Your task to perform on an android device: Clear the shopping cart on bestbuy. Add "usb-c to usb-a" to the cart on bestbuy Image 0: 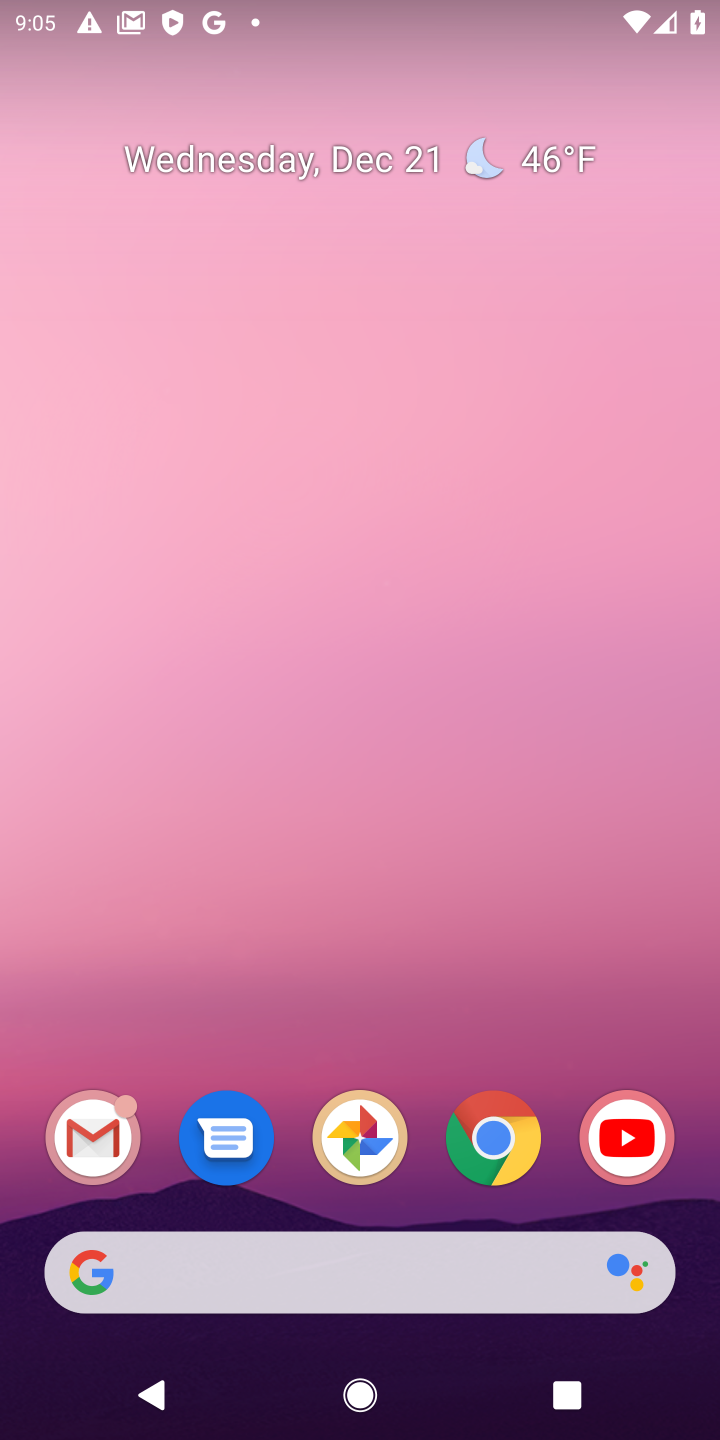
Step 0: click (498, 1142)
Your task to perform on an android device: Clear the shopping cart on bestbuy. Add "usb-c to usb-a" to the cart on bestbuy Image 1: 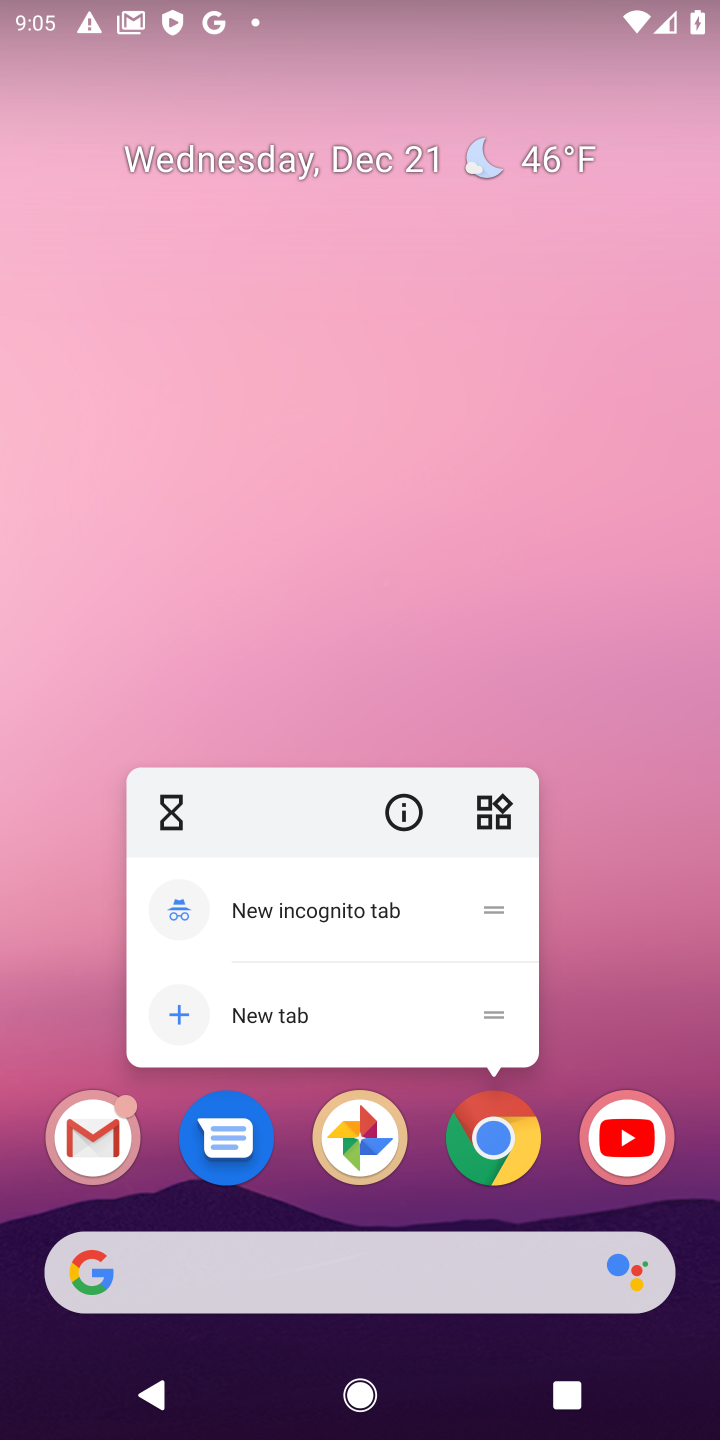
Step 1: click (500, 1152)
Your task to perform on an android device: Clear the shopping cart on bestbuy. Add "usb-c to usb-a" to the cart on bestbuy Image 2: 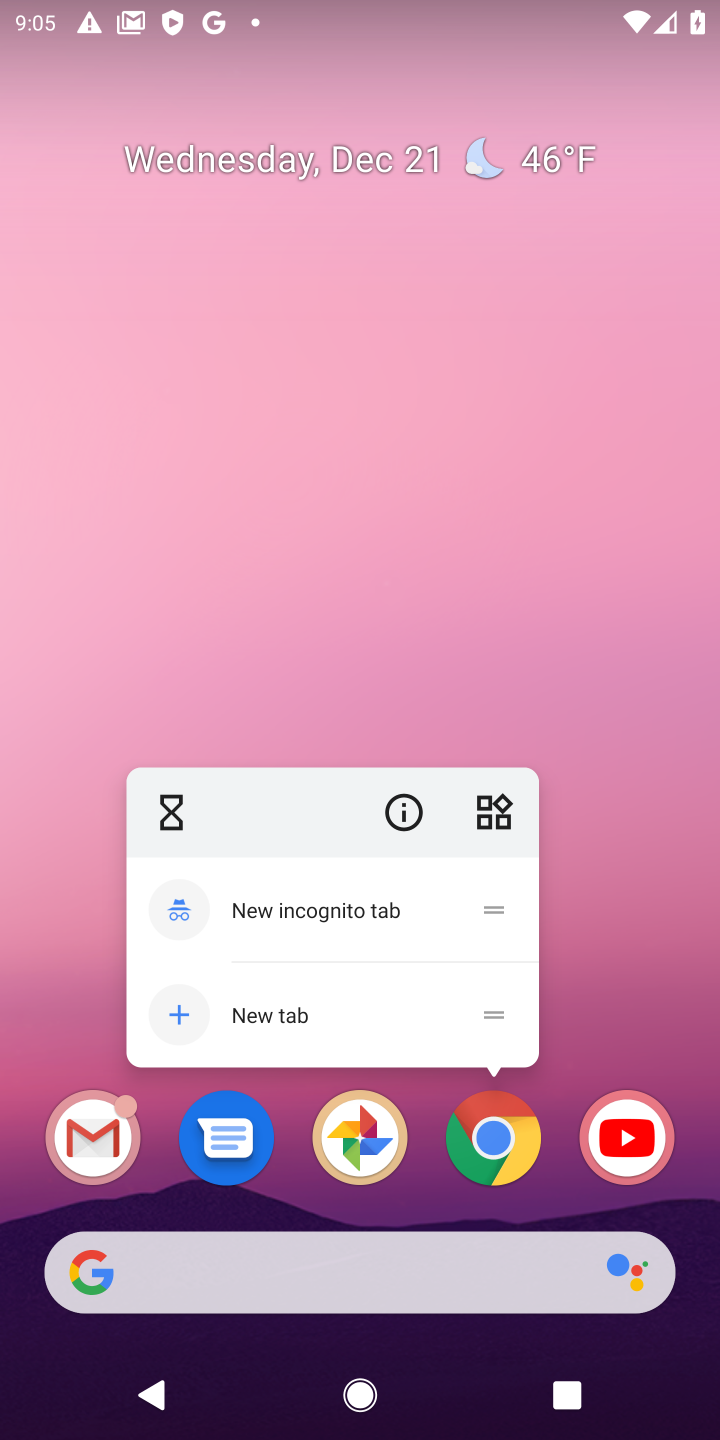
Step 2: click (501, 1154)
Your task to perform on an android device: Clear the shopping cart on bestbuy. Add "usb-c to usb-a" to the cart on bestbuy Image 3: 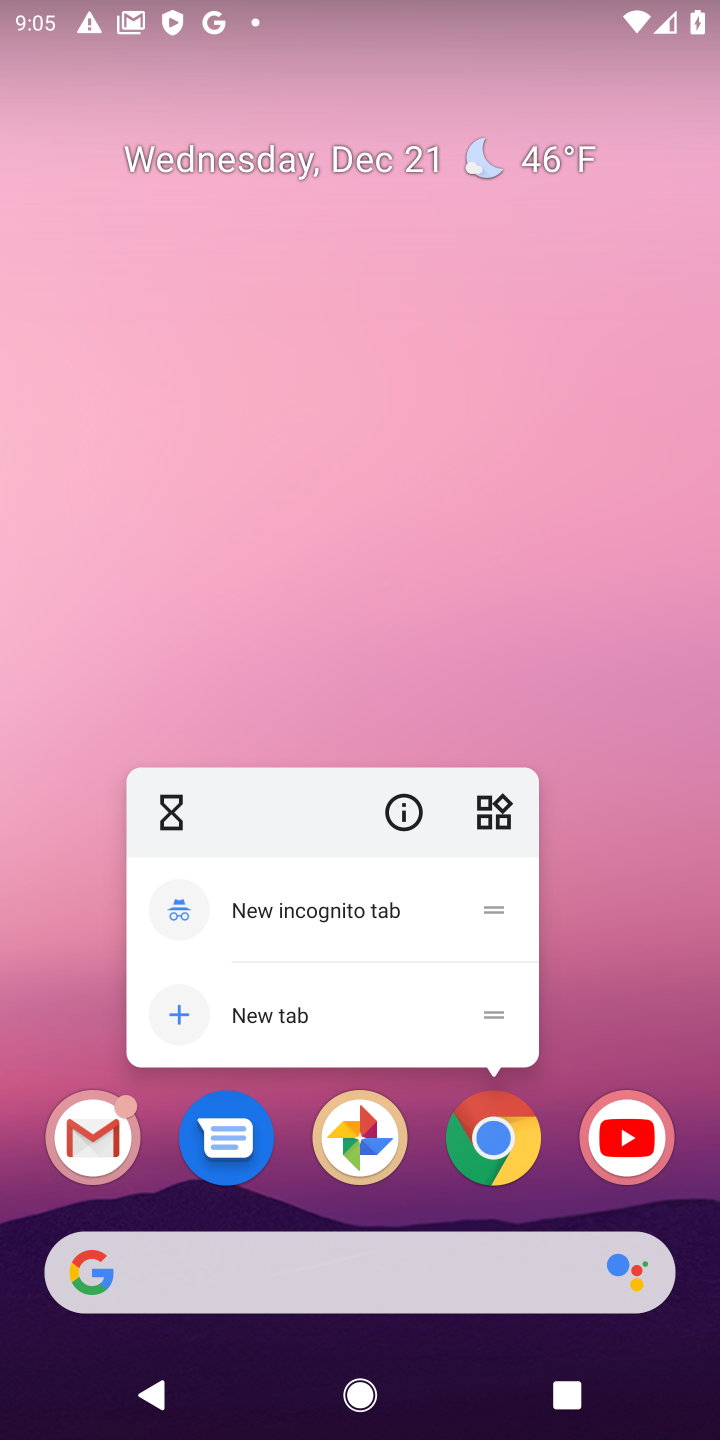
Step 3: click (501, 1154)
Your task to perform on an android device: Clear the shopping cart on bestbuy. Add "usb-c to usb-a" to the cart on bestbuy Image 4: 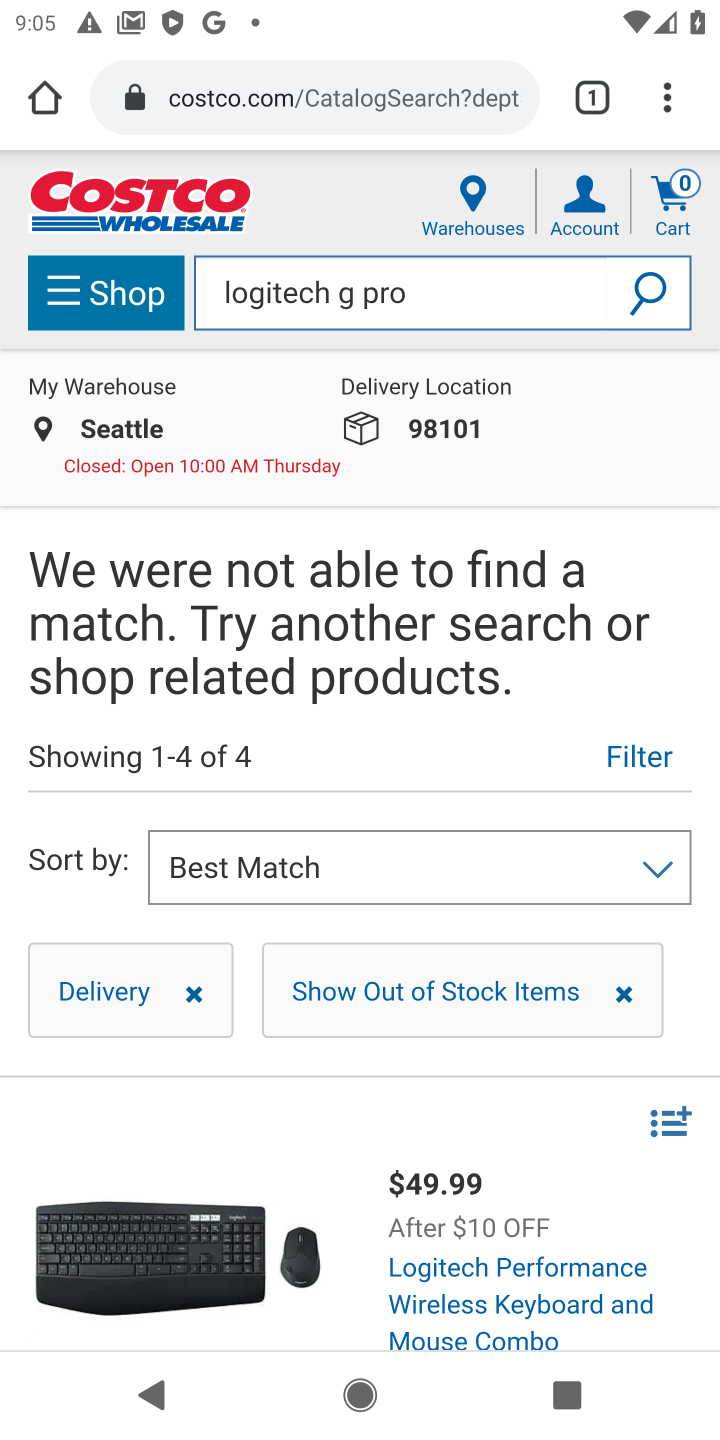
Step 4: click (265, 113)
Your task to perform on an android device: Clear the shopping cart on bestbuy. Add "usb-c to usb-a" to the cart on bestbuy Image 5: 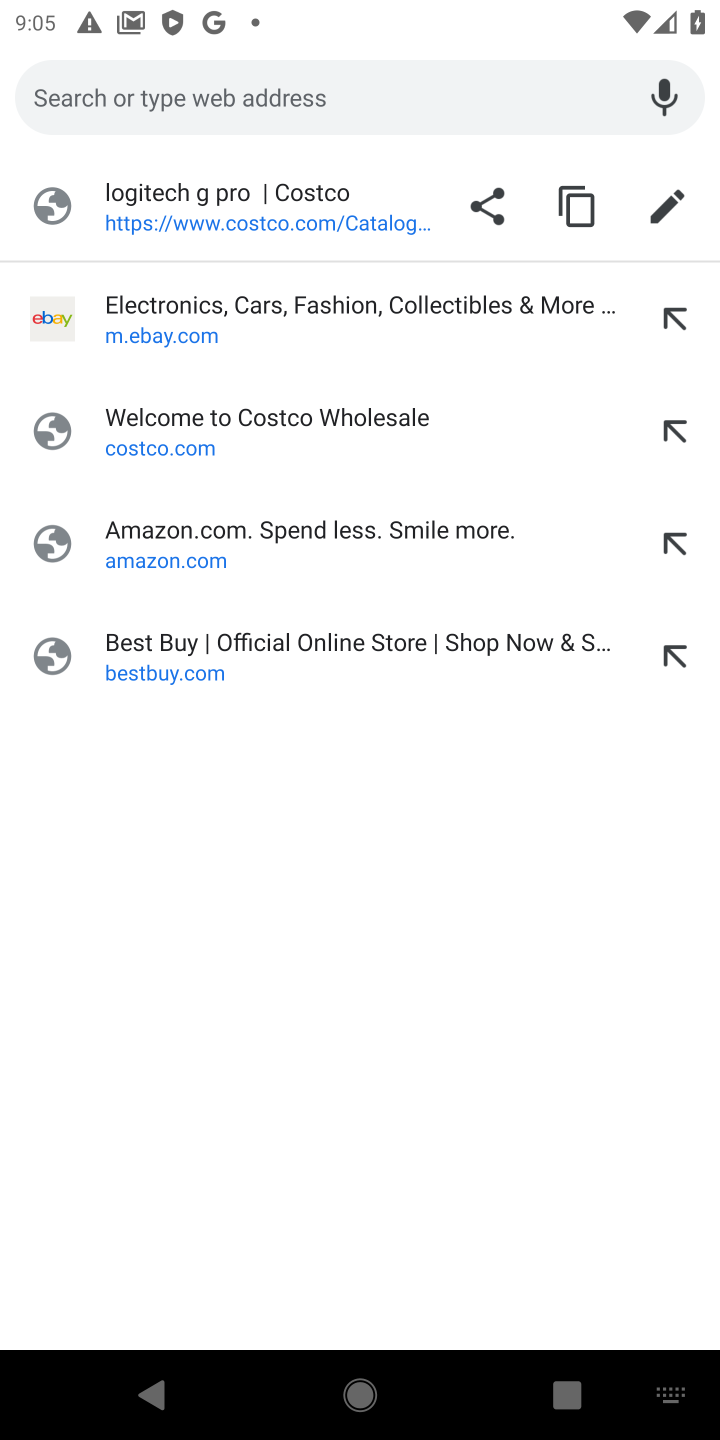
Step 5: click (147, 644)
Your task to perform on an android device: Clear the shopping cart on bestbuy. Add "usb-c to usb-a" to the cart on bestbuy Image 6: 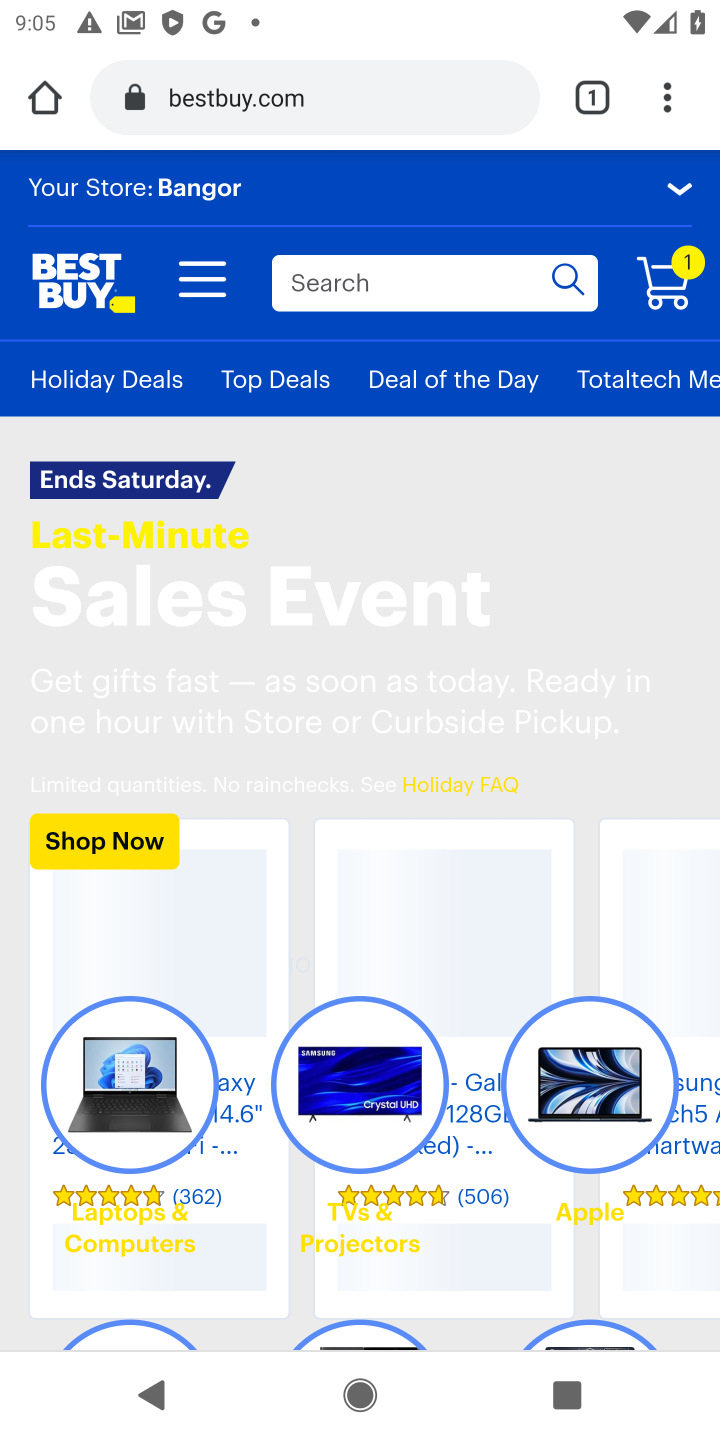
Step 6: click (656, 285)
Your task to perform on an android device: Clear the shopping cart on bestbuy. Add "usb-c to usb-a" to the cart on bestbuy Image 7: 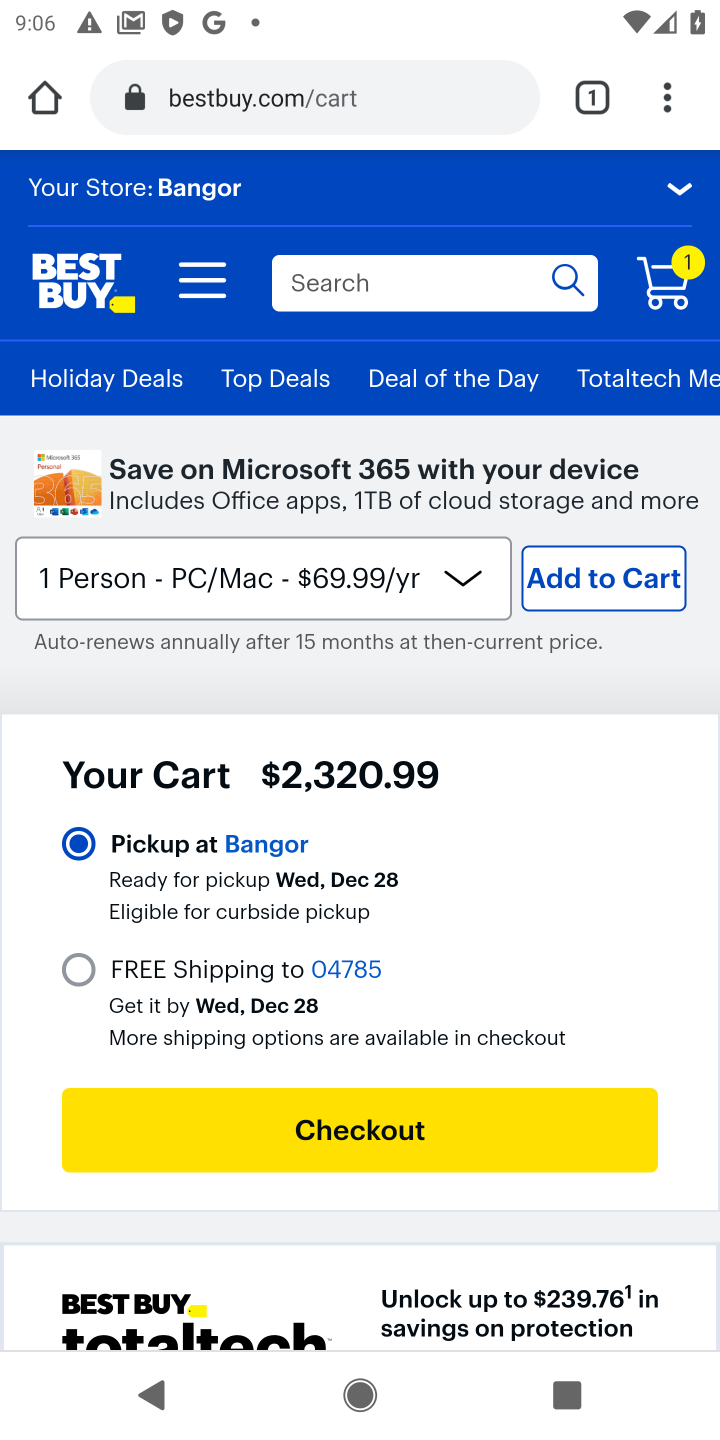
Step 7: drag from (382, 890) to (457, 388)
Your task to perform on an android device: Clear the shopping cart on bestbuy. Add "usb-c to usb-a" to the cart on bestbuy Image 8: 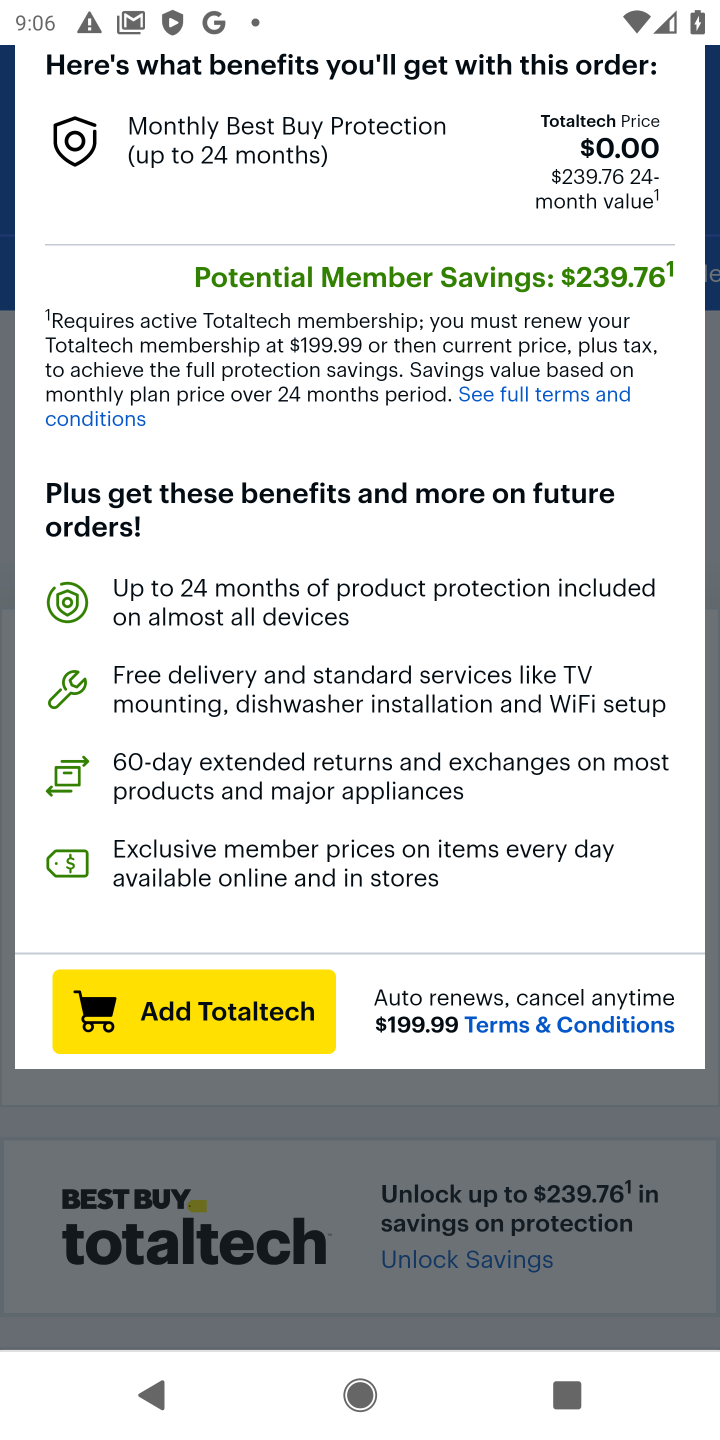
Step 8: click (701, 1134)
Your task to perform on an android device: Clear the shopping cart on bestbuy. Add "usb-c to usb-a" to the cart on bestbuy Image 9: 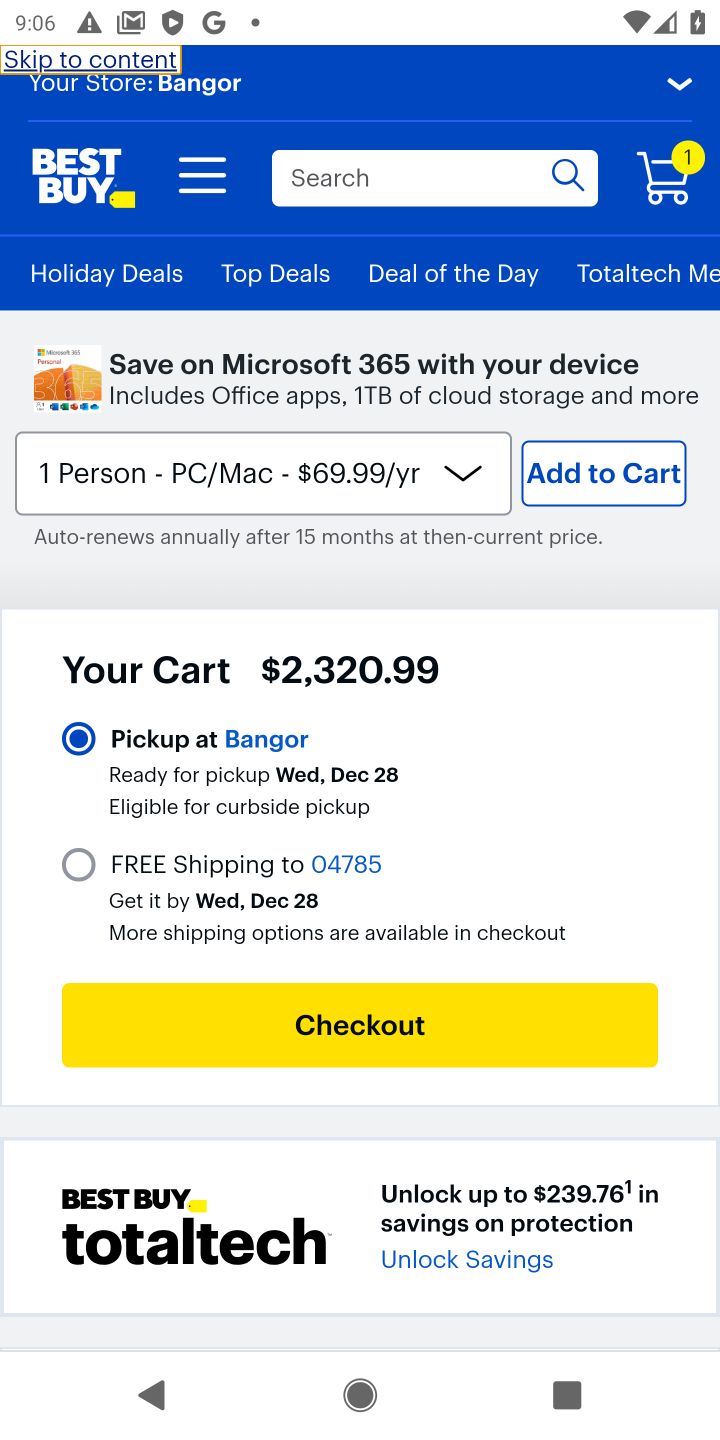
Step 9: drag from (387, 1073) to (371, 482)
Your task to perform on an android device: Clear the shopping cart on bestbuy. Add "usb-c to usb-a" to the cart on bestbuy Image 10: 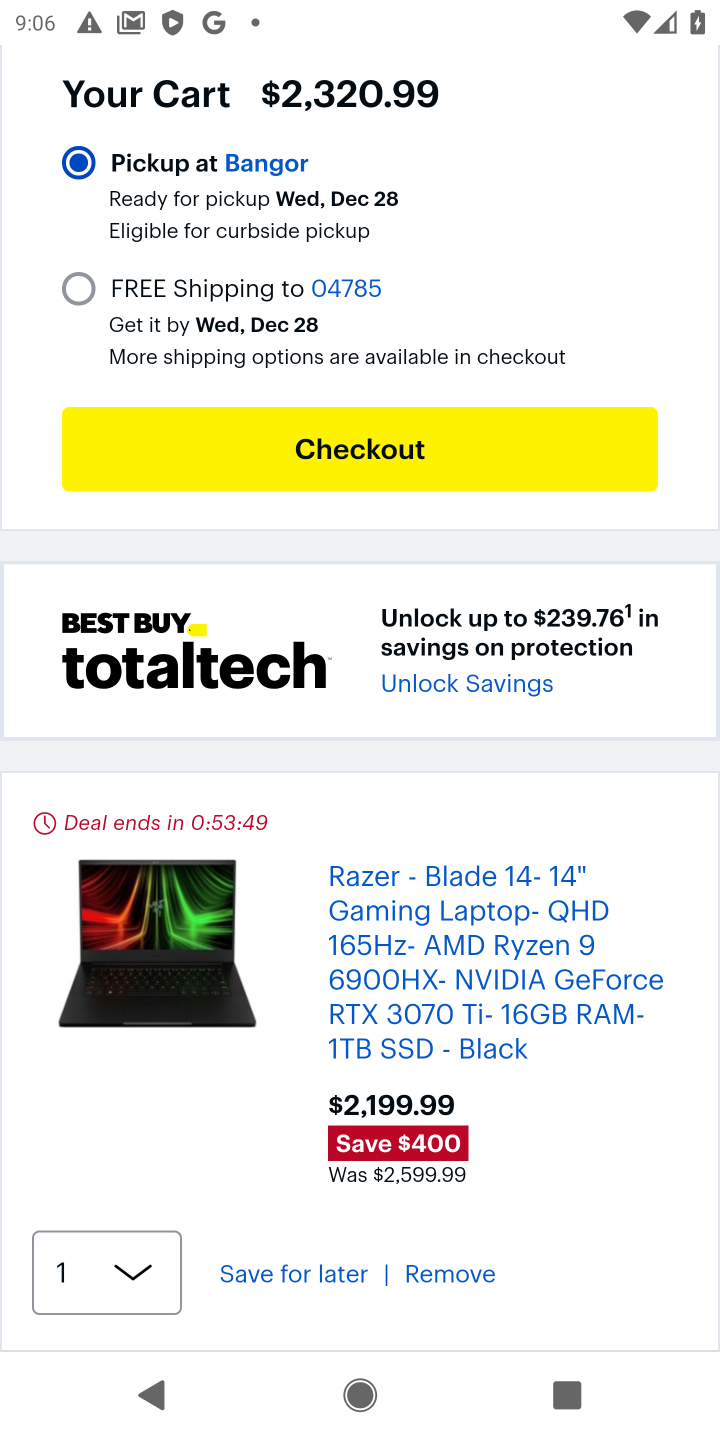
Step 10: click (446, 1275)
Your task to perform on an android device: Clear the shopping cart on bestbuy. Add "usb-c to usb-a" to the cart on bestbuy Image 11: 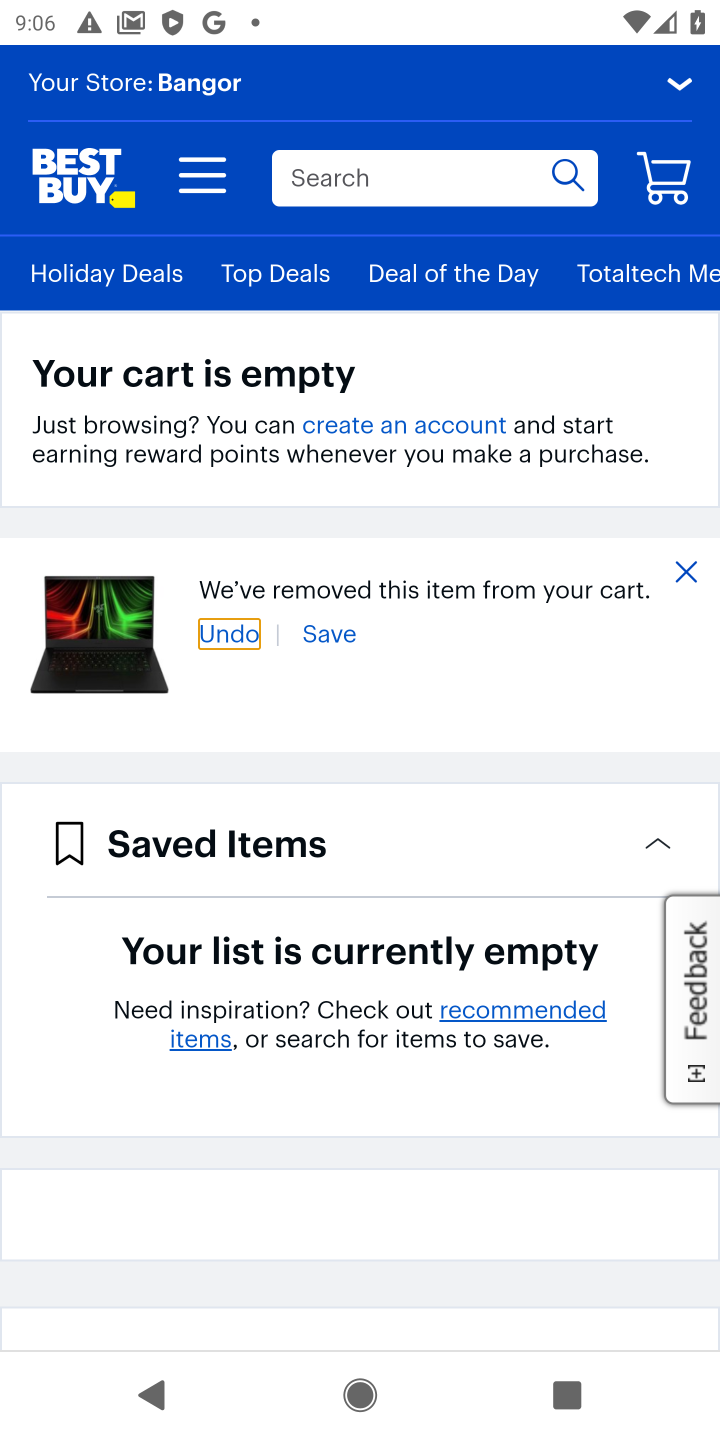
Step 11: click (376, 178)
Your task to perform on an android device: Clear the shopping cart on bestbuy. Add "usb-c to usb-a" to the cart on bestbuy Image 12: 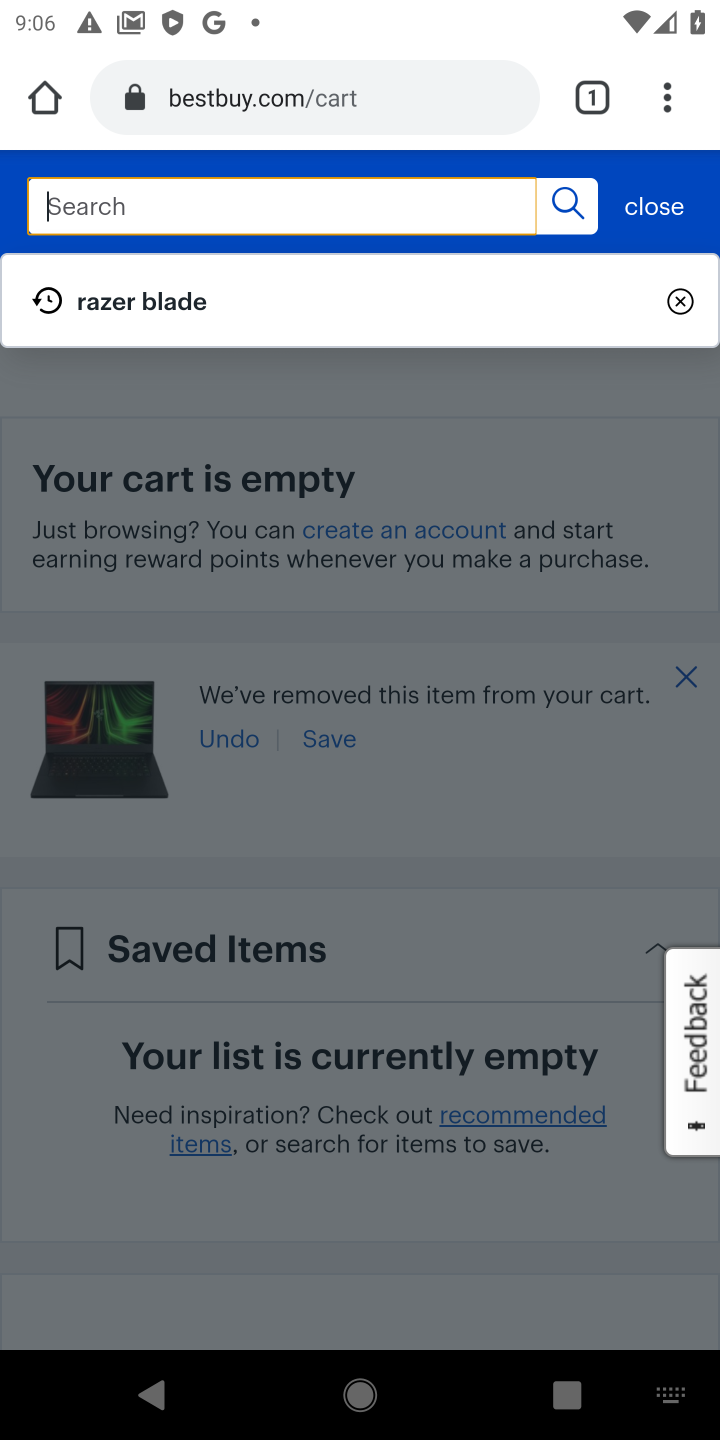
Step 12: type "usb-c to usb-a"
Your task to perform on an android device: Clear the shopping cart on bestbuy. Add "usb-c to usb-a" to the cart on bestbuy Image 13: 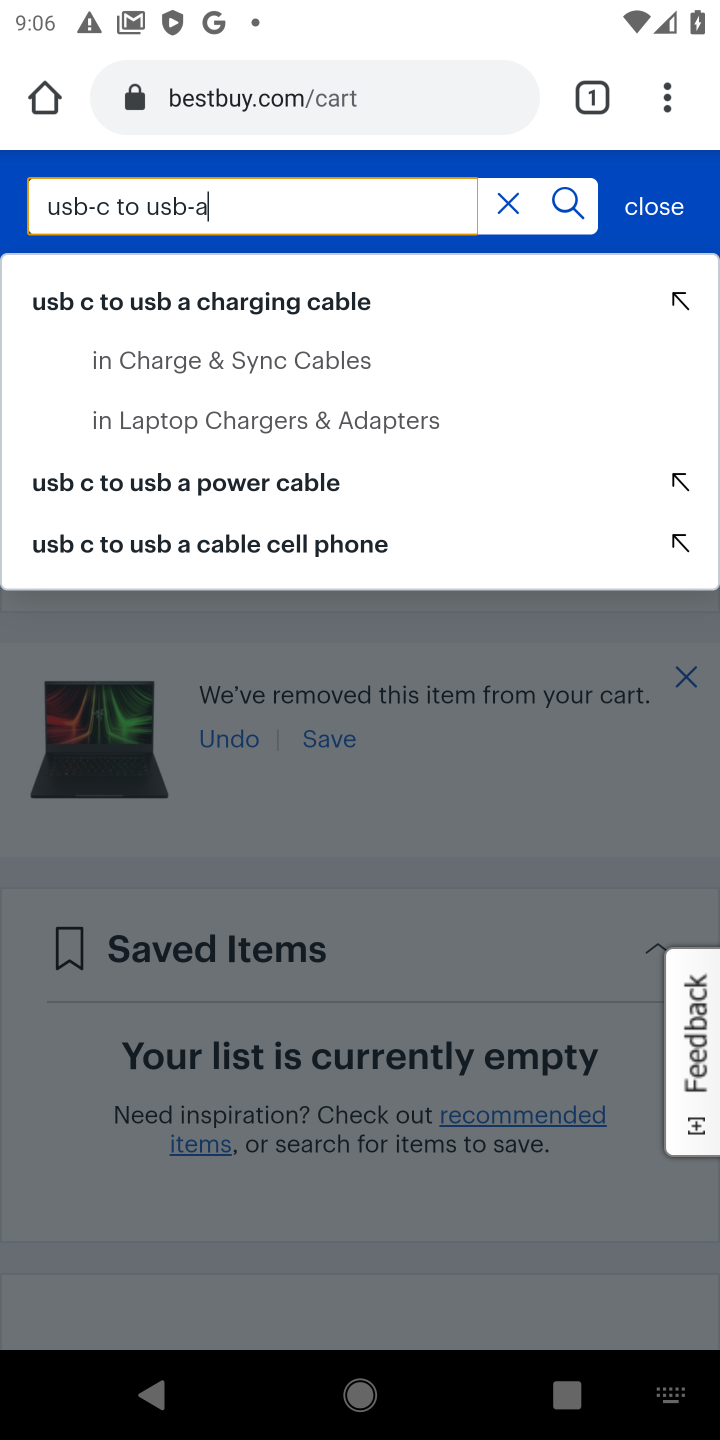
Step 13: click (581, 200)
Your task to perform on an android device: Clear the shopping cart on bestbuy. Add "usb-c to usb-a" to the cart on bestbuy Image 14: 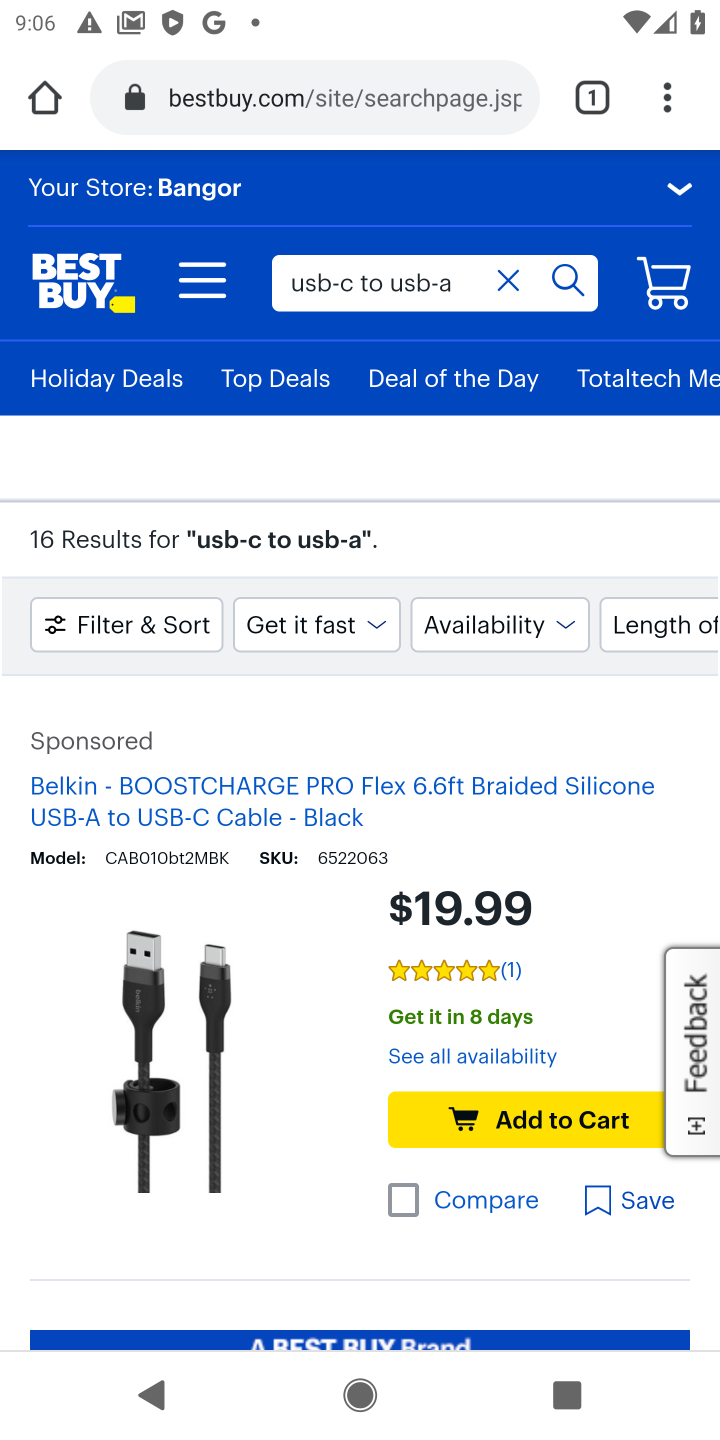
Step 14: drag from (337, 977) to (408, 426)
Your task to perform on an android device: Clear the shopping cart on bestbuy. Add "usb-c to usb-a" to the cart on bestbuy Image 15: 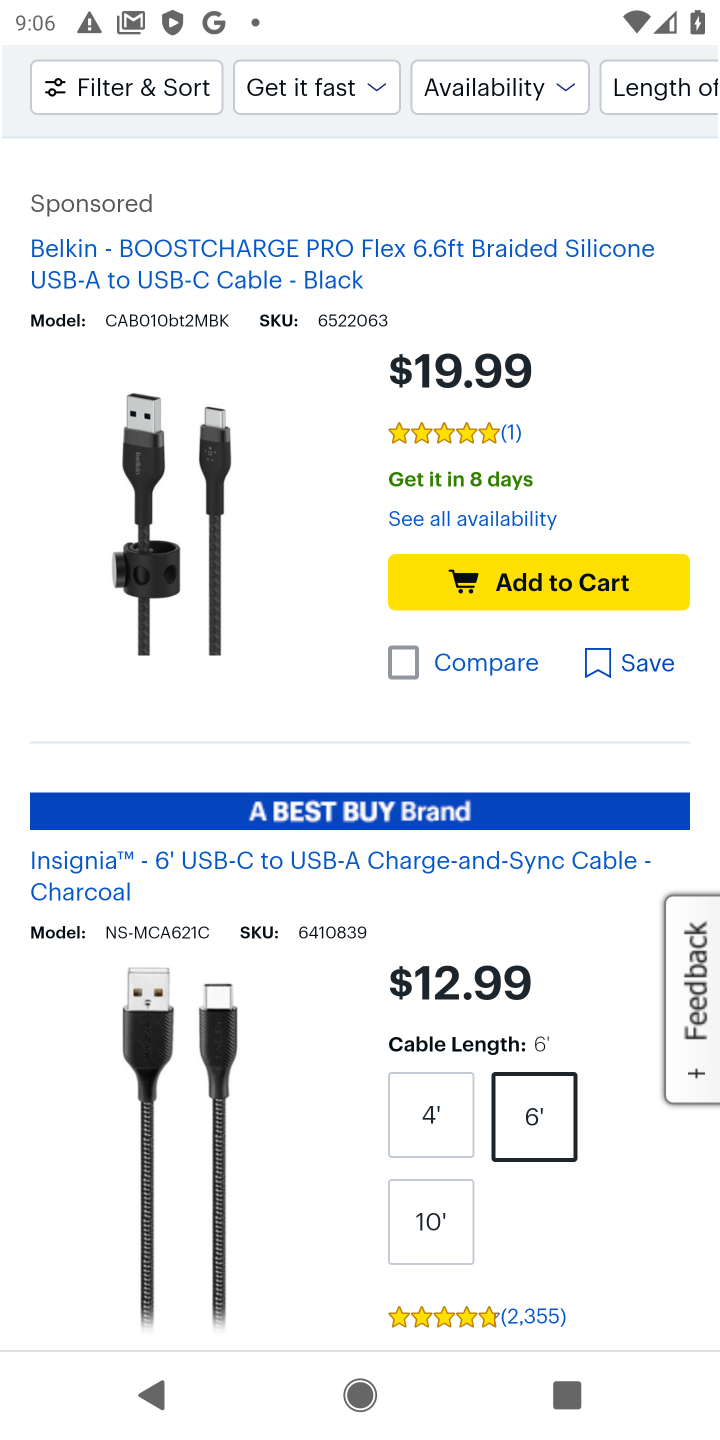
Step 15: drag from (419, 1021) to (408, 609)
Your task to perform on an android device: Clear the shopping cart on bestbuy. Add "usb-c to usb-a" to the cart on bestbuy Image 16: 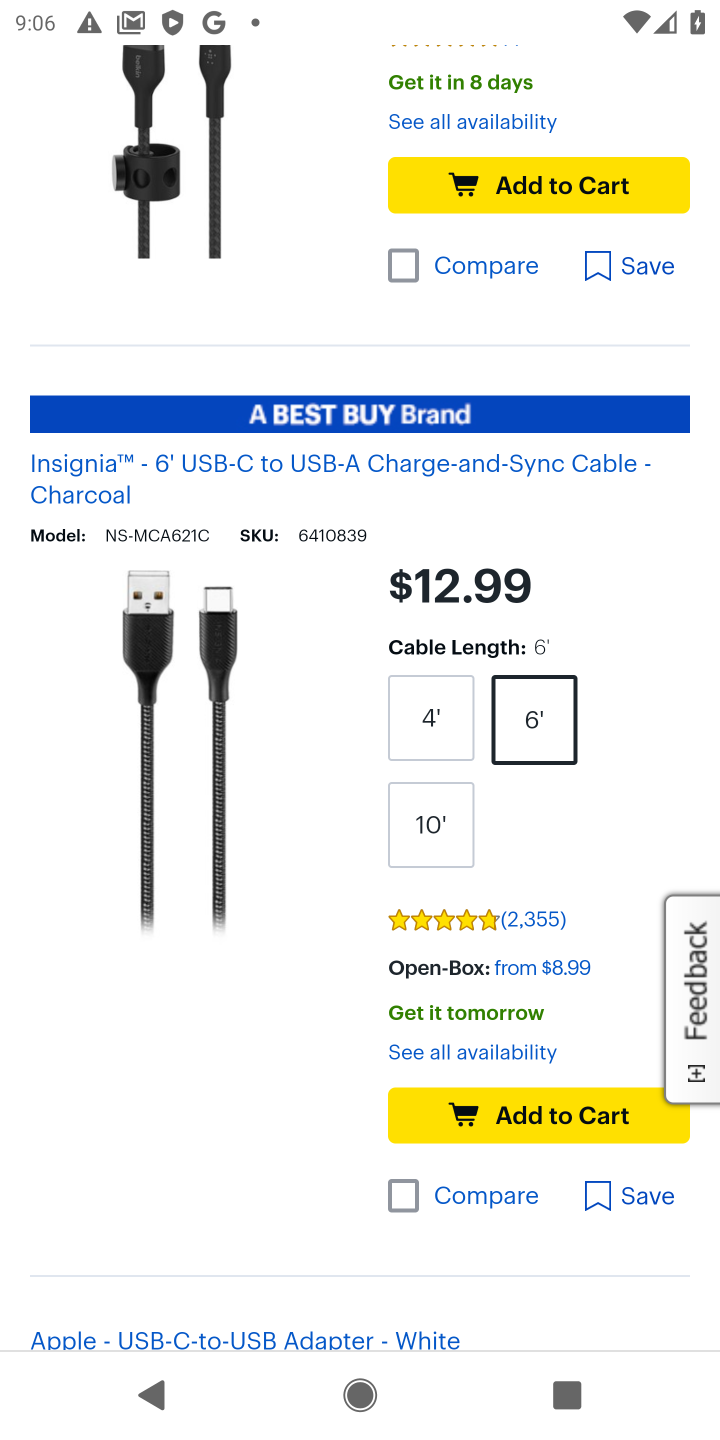
Step 16: click (527, 1111)
Your task to perform on an android device: Clear the shopping cart on bestbuy. Add "usb-c to usb-a" to the cart on bestbuy Image 17: 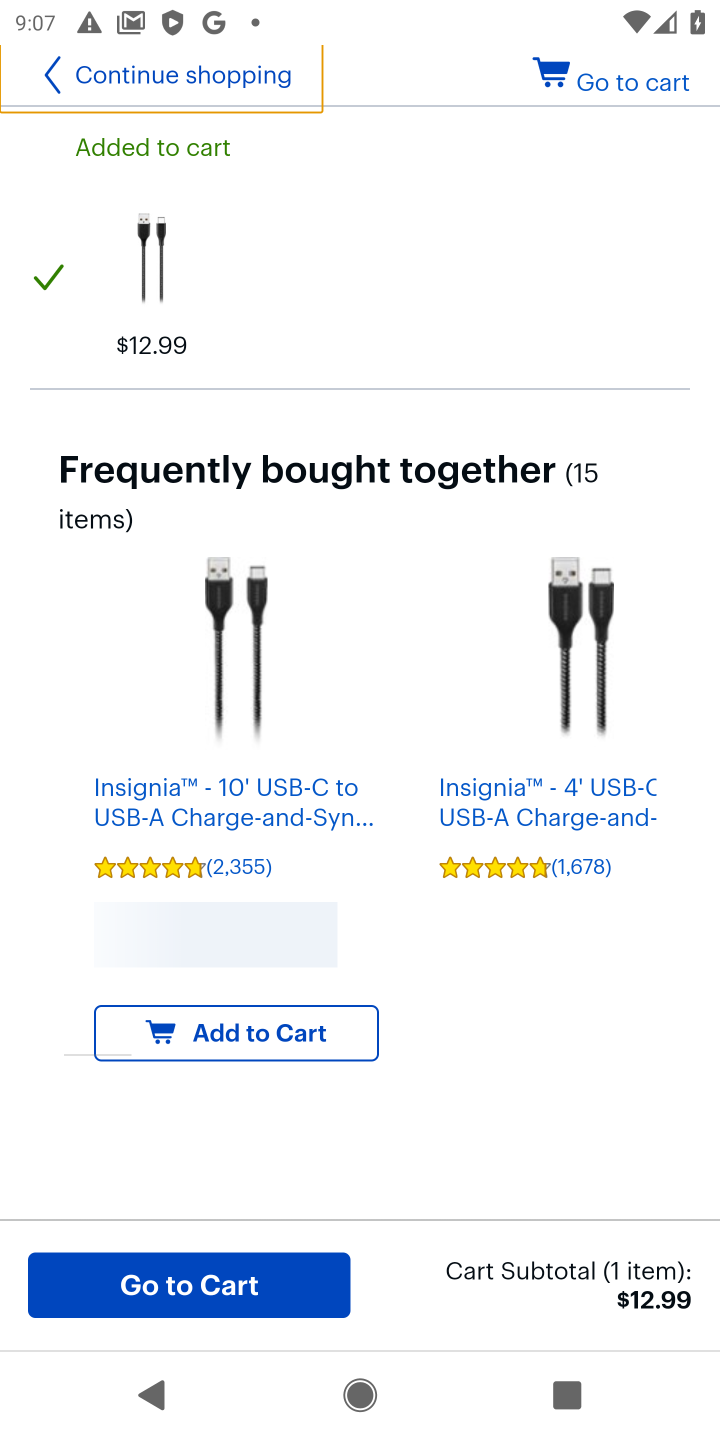
Step 17: task complete